Your task to perform on an android device: What's on my calendar tomorrow? Image 0: 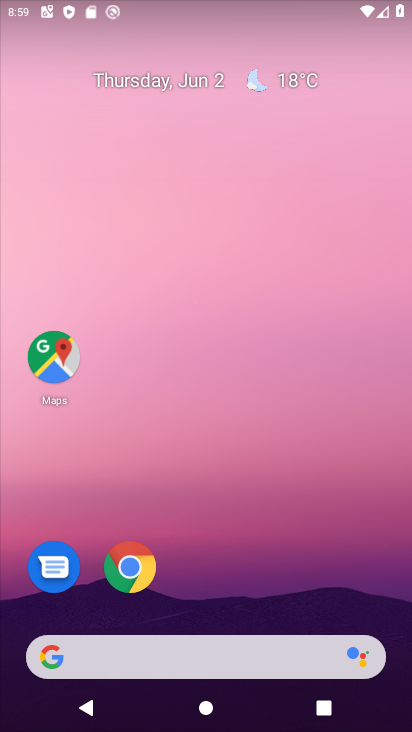
Step 0: press home button
Your task to perform on an android device: What's on my calendar tomorrow? Image 1: 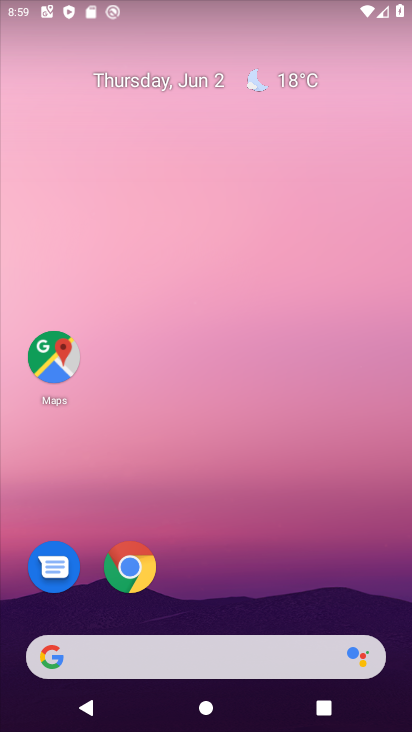
Step 1: drag from (226, 591) to (294, 129)
Your task to perform on an android device: What's on my calendar tomorrow? Image 2: 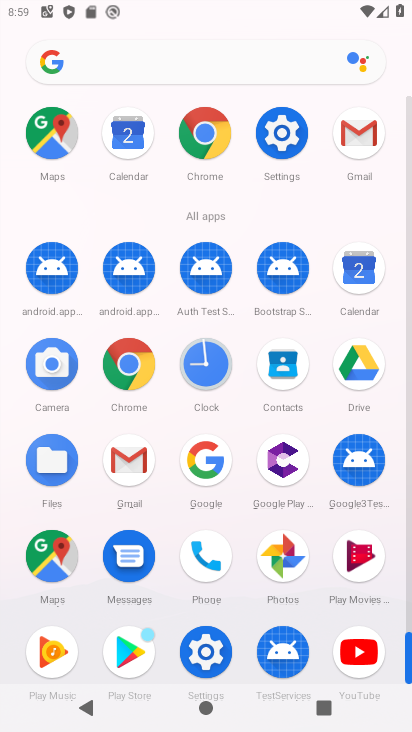
Step 2: click (359, 261)
Your task to perform on an android device: What's on my calendar tomorrow? Image 3: 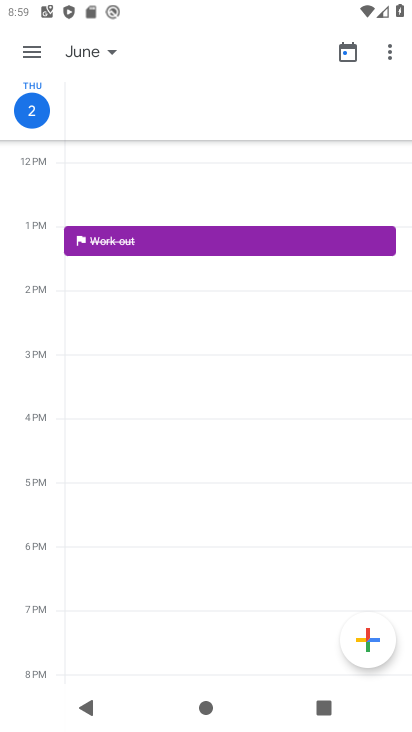
Step 3: click (46, 123)
Your task to perform on an android device: What's on my calendar tomorrow? Image 4: 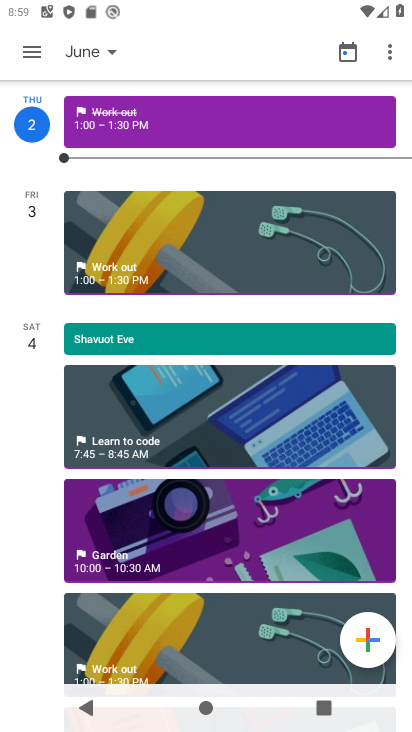
Step 4: click (45, 226)
Your task to perform on an android device: What's on my calendar tomorrow? Image 5: 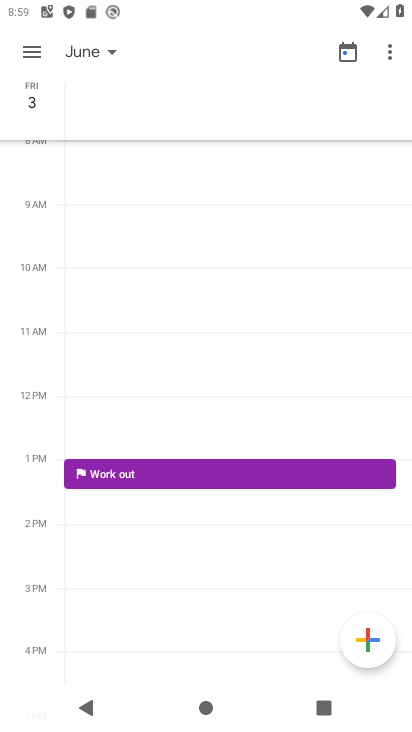
Step 5: drag from (36, 231) to (33, 575)
Your task to perform on an android device: What's on my calendar tomorrow? Image 6: 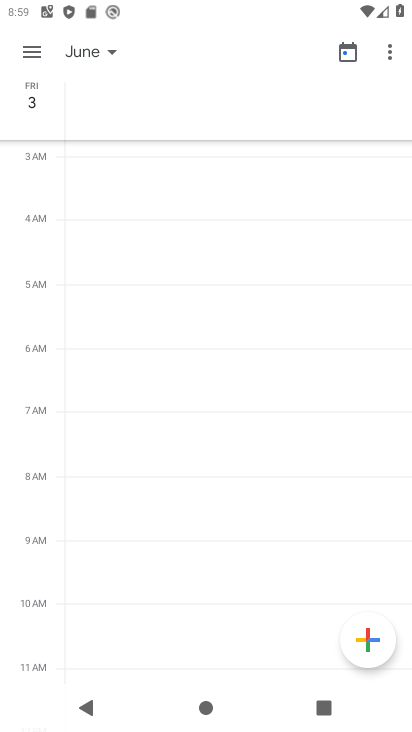
Step 6: click (35, 606)
Your task to perform on an android device: What's on my calendar tomorrow? Image 7: 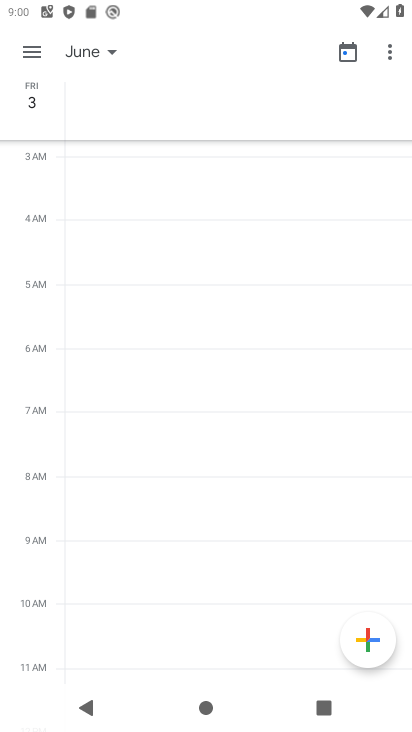
Step 7: drag from (52, 217) to (47, 526)
Your task to perform on an android device: What's on my calendar tomorrow? Image 8: 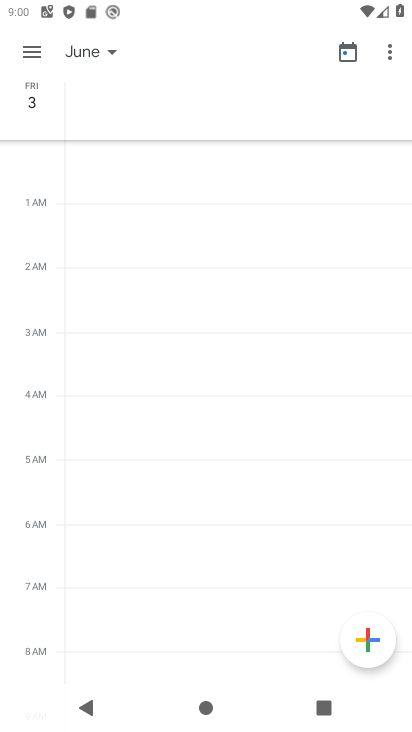
Step 8: drag from (37, 611) to (69, 262)
Your task to perform on an android device: What's on my calendar tomorrow? Image 9: 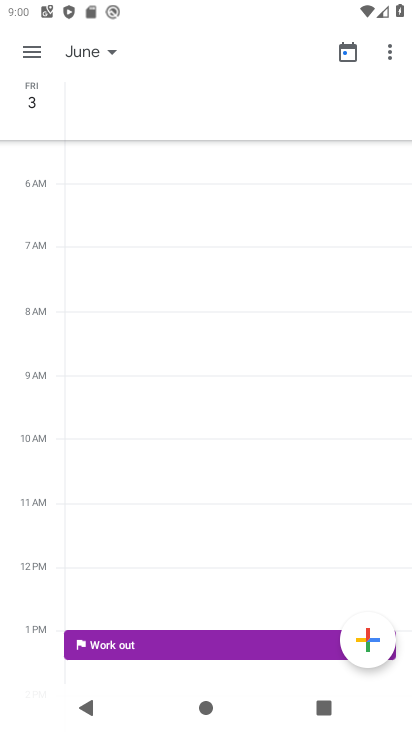
Step 9: drag from (34, 583) to (63, 287)
Your task to perform on an android device: What's on my calendar tomorrow? Image 10: 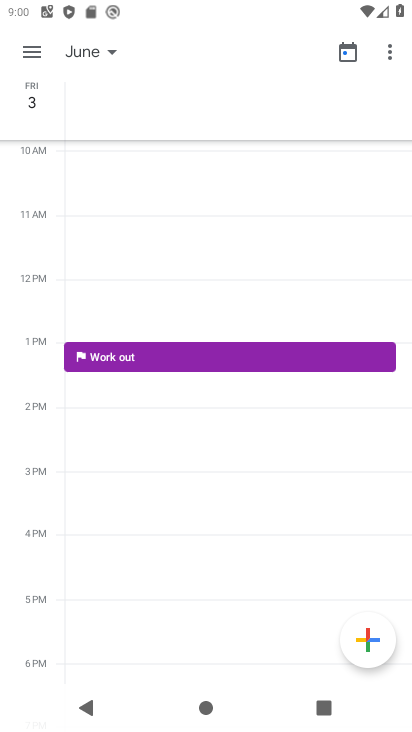
Step 10: click (61, 236)
Your task to perform on an android device: What's on my calendar tomorrow? Image 11: 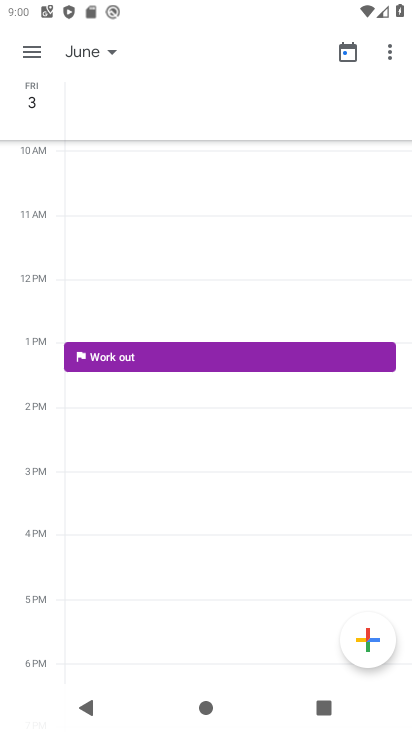
Step 11: task complete